Your task to perform on an android device: change the clock display to digital Image 0: 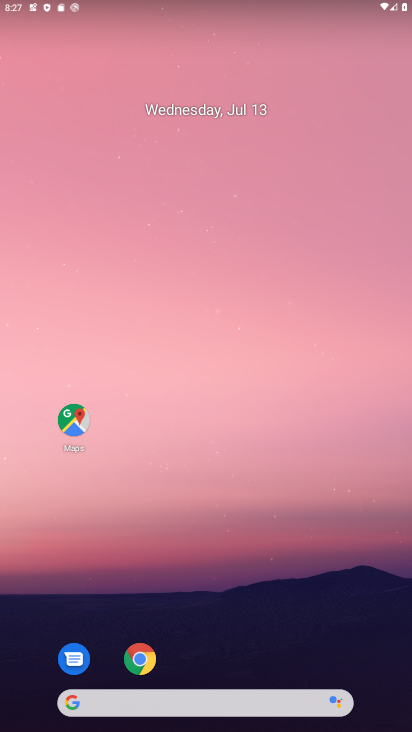
Step 0: drag from (235, 661) to (229, 209)
Your task to perform on an android device: change the clock display to digital Image 1: 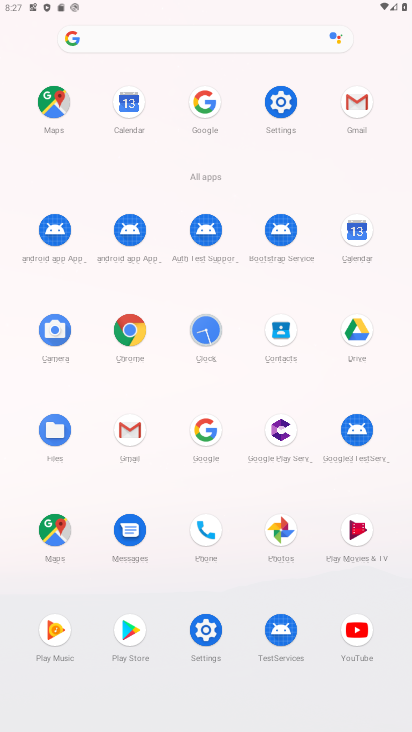
Step 1: click (210, 349)
Your task to perform on an android device: change the clock display to digital Image 2: 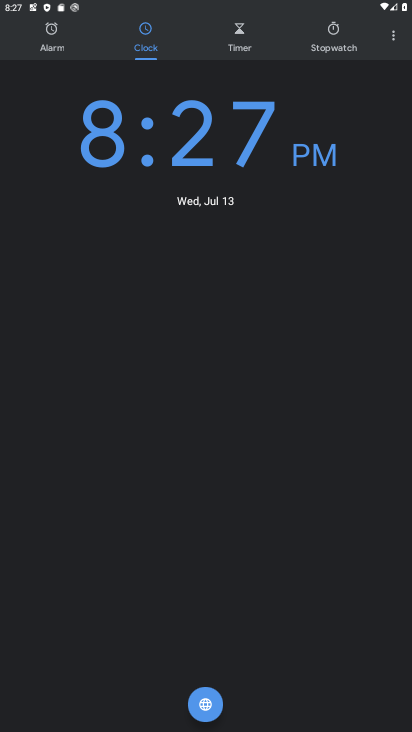
Step 2: click (394, 33)
Your task to perform on an android device: change the clock display to digital Image 3: 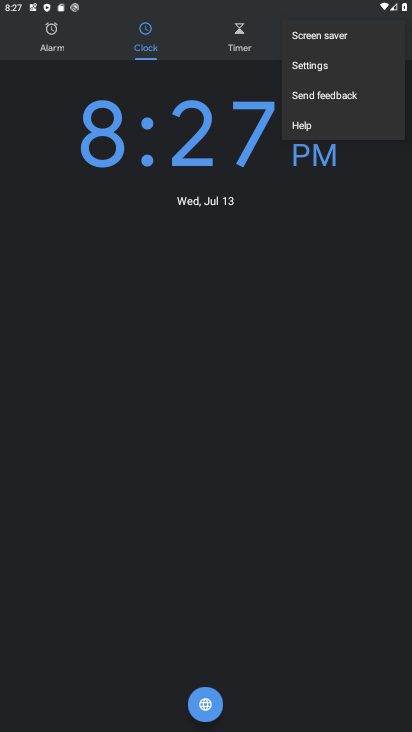
Step 3: click (334, 72)
Your task to perform on an android device: change the clock display to digital Image 4: 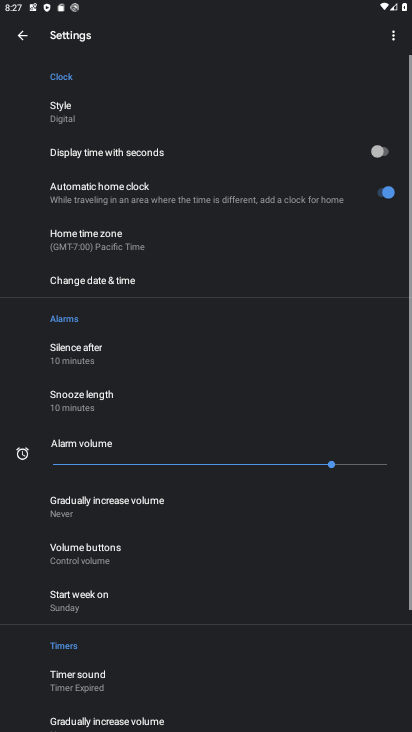
Step 4: click (112, 117)
Your task to perform on an android device: change the clock display to digital Image 5: 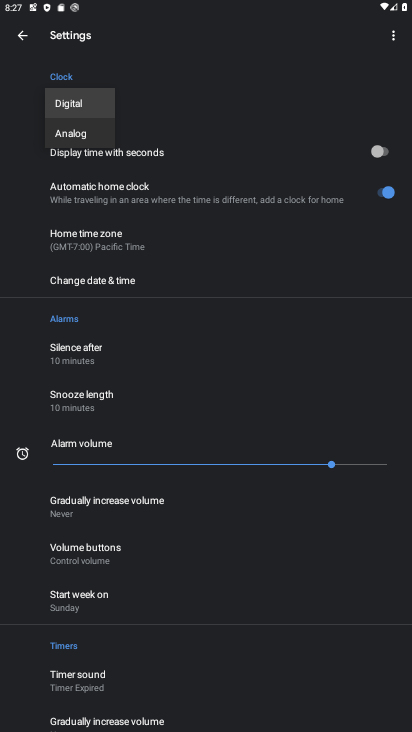
Step 5: click (93, 129)
Your task to perform on an android device: change the clock display to digital Image 6: 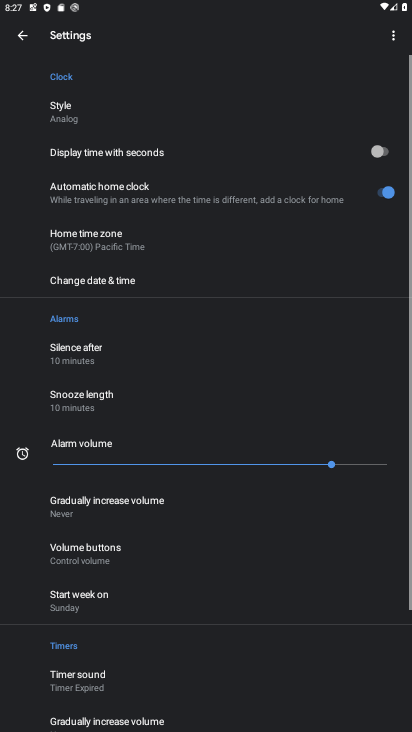
Step 6: click (66, 108)
Your task to perform on an android device: change the clock display to digital Image 7: 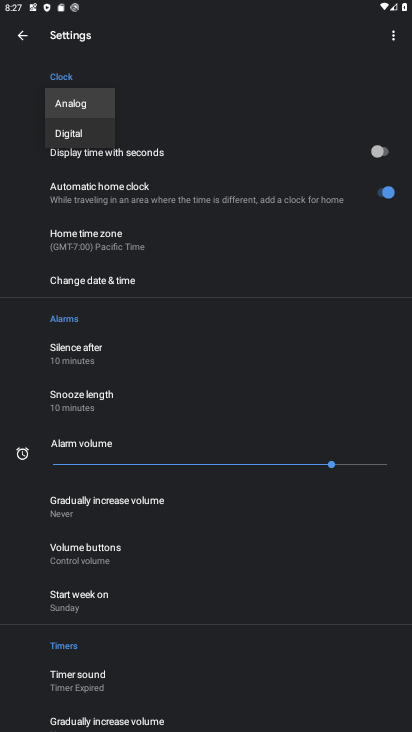
Step 7: click (72, 129)
Your task to perform on an android device: change the clock display to digital Image 8: 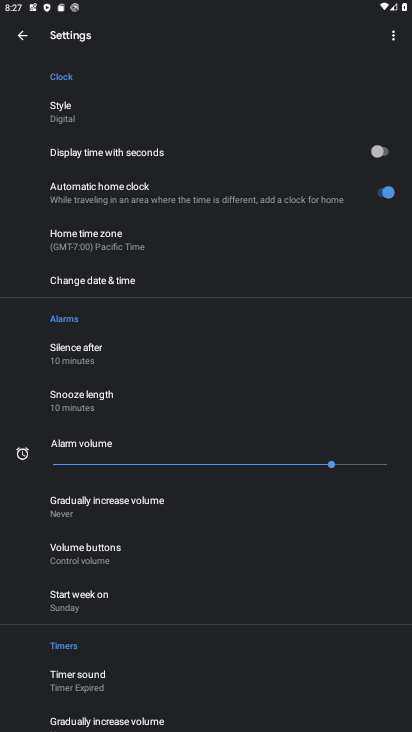
Step 8: task complete